Your task to perform on an android device: Open calendar and show me the fourth week of next month Image 0: 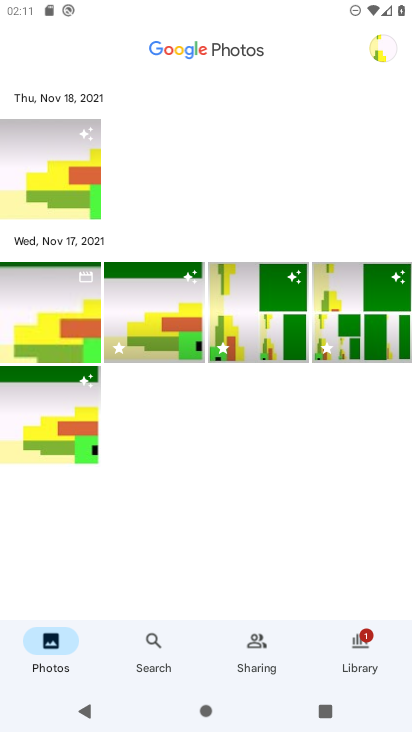
Step 0: press home button
Your task to perform on an android device: Open calendar and show me the fourth week of next month Image 1: 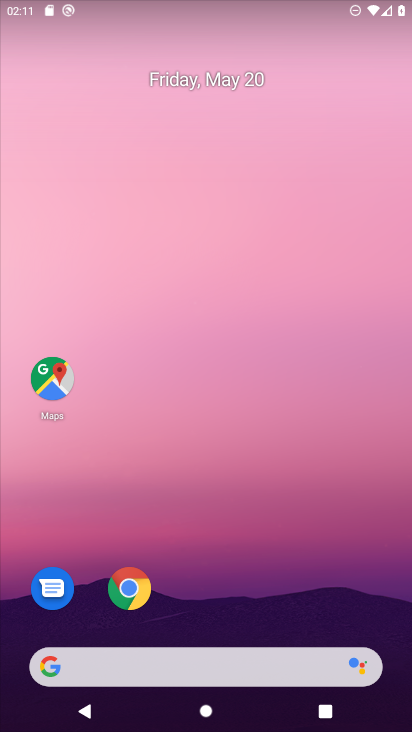
Step 1: drag from (376, 605) to (302, 20)
Your task to perform on an android device: Open calendar and show me the fourth week of next month Image 2: 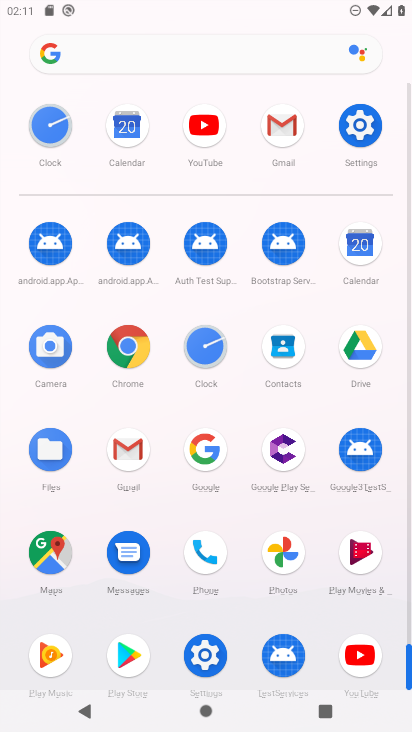
Step 2: click (358, 240)
Your task to perform on an android device: Open calendar and show me the fourth week of next month Image 3: 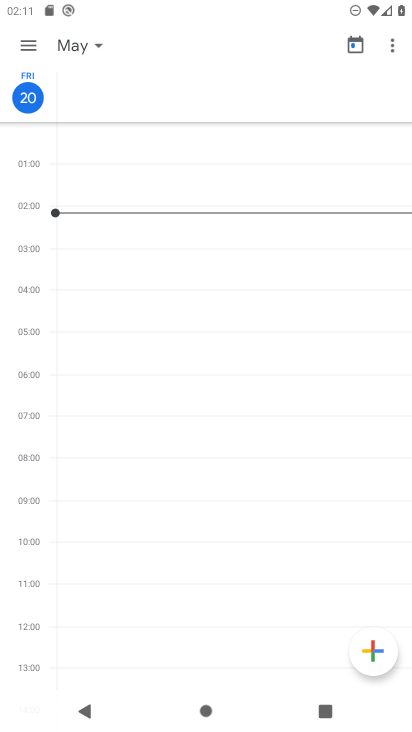
Step 3: click (24, 43)
Your task to perform on an android device: Open calendar and show me the fourth week of next month Image 4: 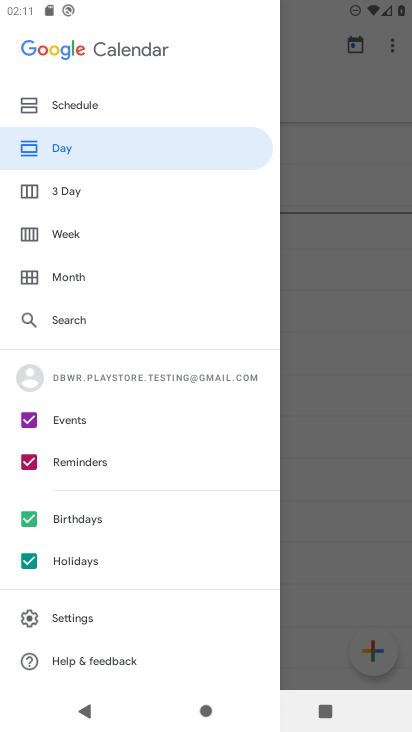
Step 4: click (68, 234)
Your task to perform on an android device: Open calendar and show me the fourth week of next month Image 5: 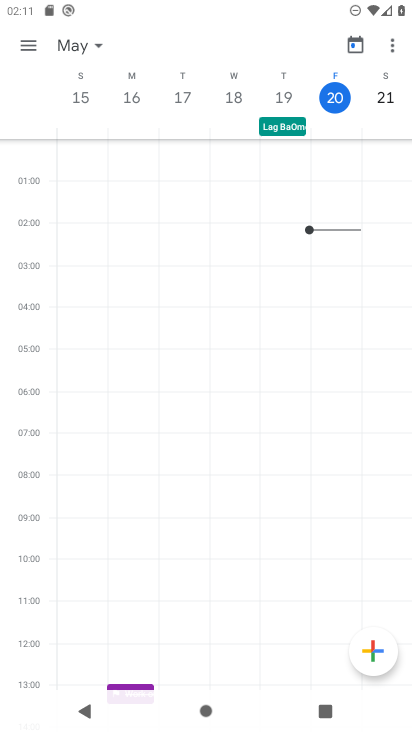
Step 5: click (95, 39)
Your task to perform on an android device: Open calendar and show me the fourth week of next month Image 6: 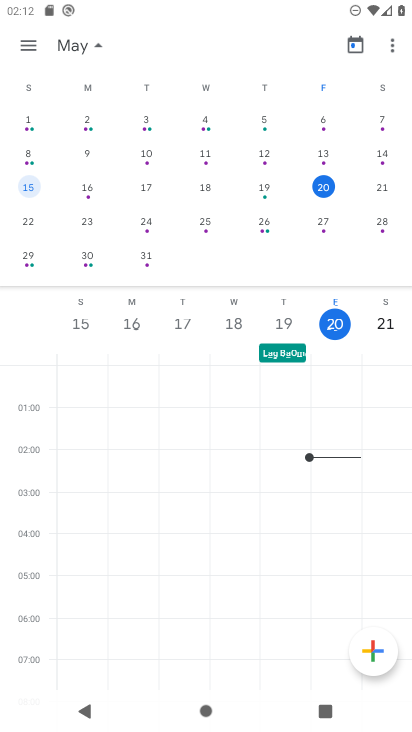
Step 6: drag from (377, 185) to (50, 193)
Your task to perform on an android device: Open calendar and show me the fourth week of next month Image 7: 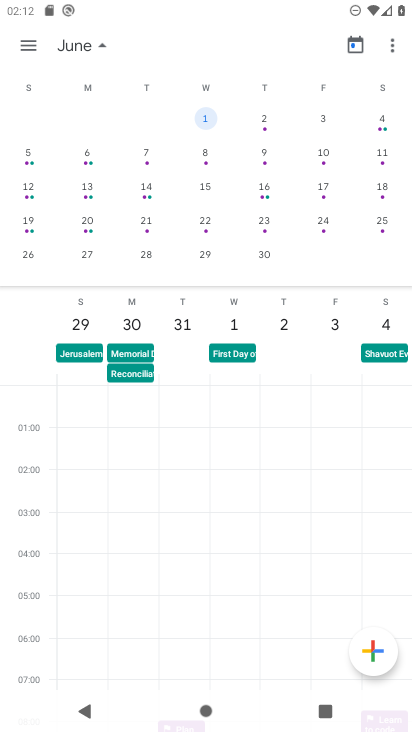
Step 7: click (29, 223)
Your task to perform on an android device: Open calendar and show me the fourth week of next month Image 8: 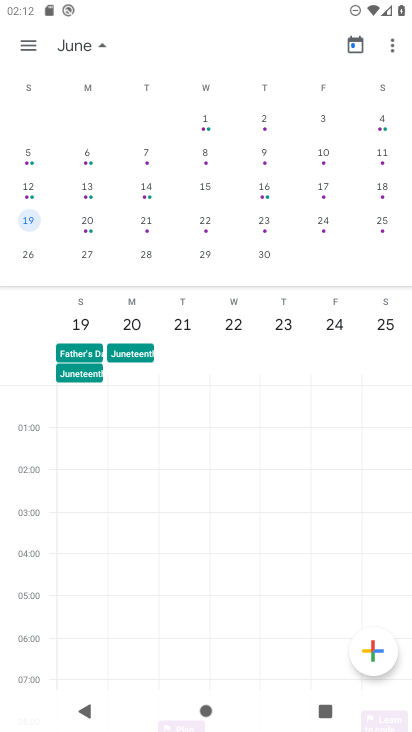
Step 8: task complete